Your task to perform on an android device: visit the assistant section in the google photos Image 0: 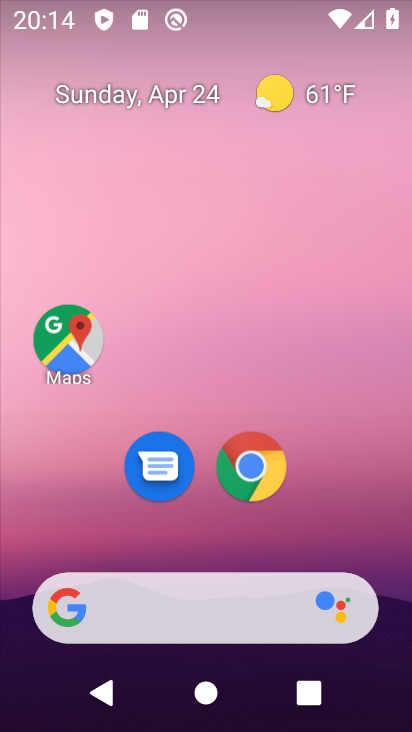
Step 0: drag from (215, 547) to (261, 0)
Your task to perform on an android device: visit the assistant section in the google photos Image 1: 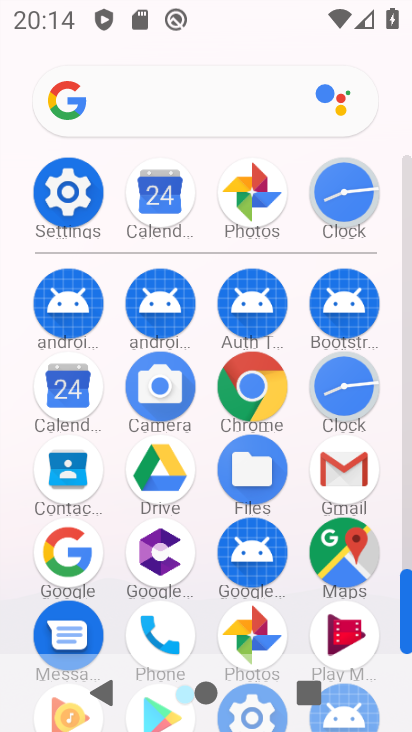
Step 1: drag from (201, 595) to (246, 374)
Your task to perform on an android device: visit the assistant section in the google photos Image 2: 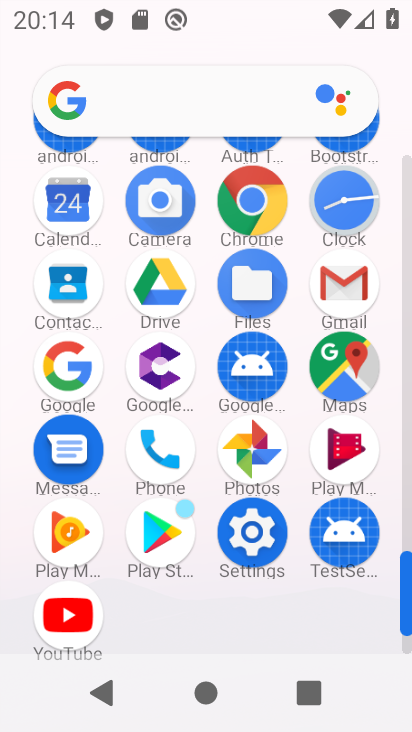
Step 2: click (265, 440)
Your task to perform on an android device: visit the assistant section in the google photos Image 3: 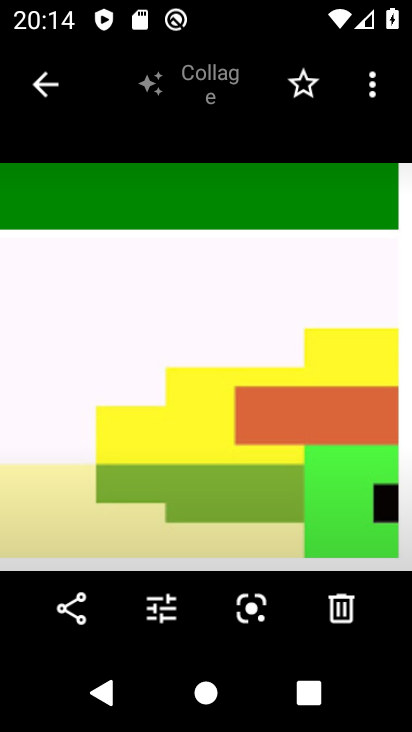
Step 3: click (51, 86)
Your task to perform on an android device: visit the assistant section in the google photos Image 4: 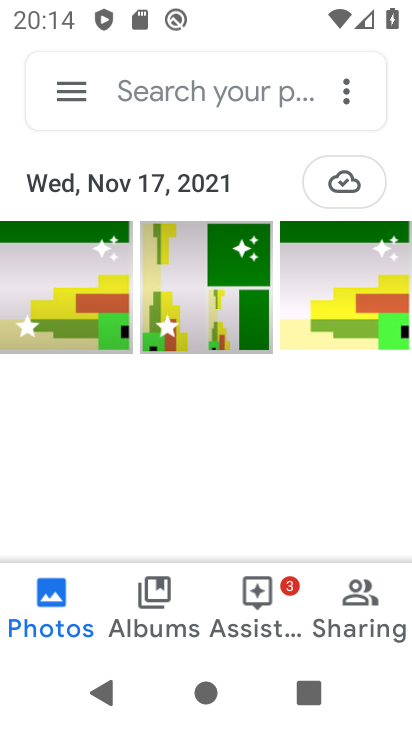
Step 4: click (258, 608)
Your task to perform on an android device: visit the assistant section in the google photos Image 5: 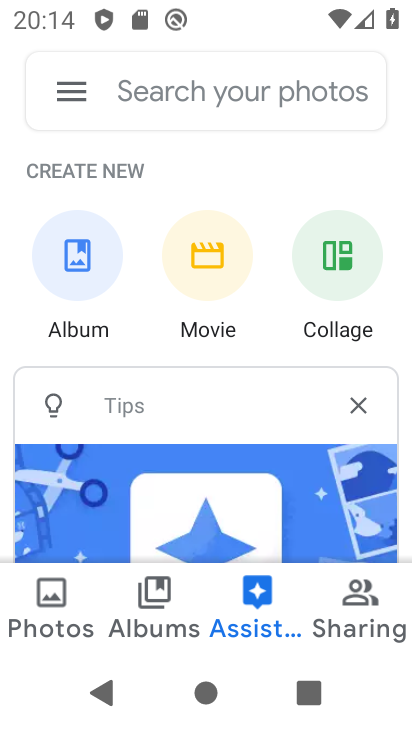
Step 5: task complete